Your task to perform on an android device: turn off improve location accuracy Image 0: 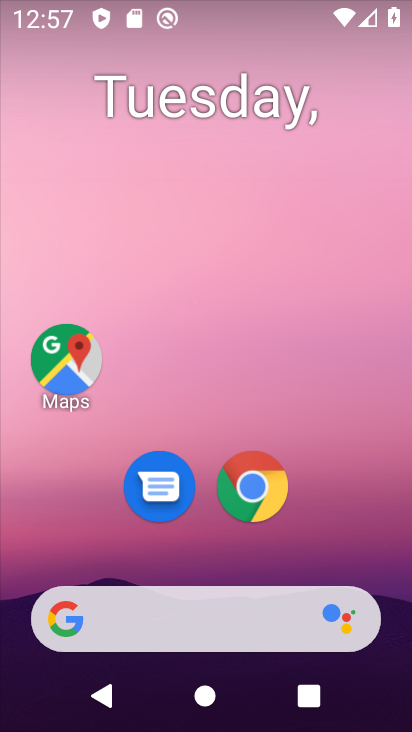
Step 0: drag from (315, 551) to (262, 200)
Your task to perform on an android device: turn off improve location accuracy Image 1: 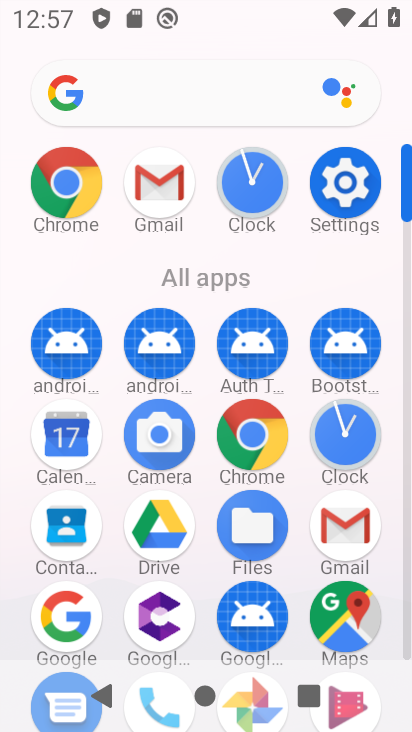
Step 1: click (337, 193)
Your task to perform on an android device: turn off improve location accuracy Image 2: 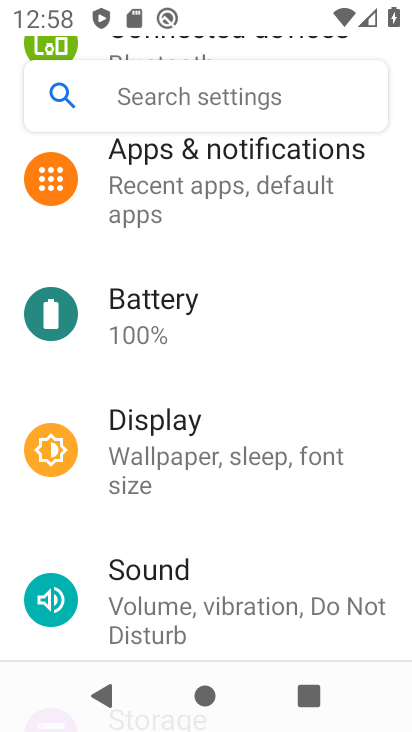
Step 2: drag from (256, 172) to (240, 654)
Your task to perform on an android device: turn off improve location accuracy Image 3: 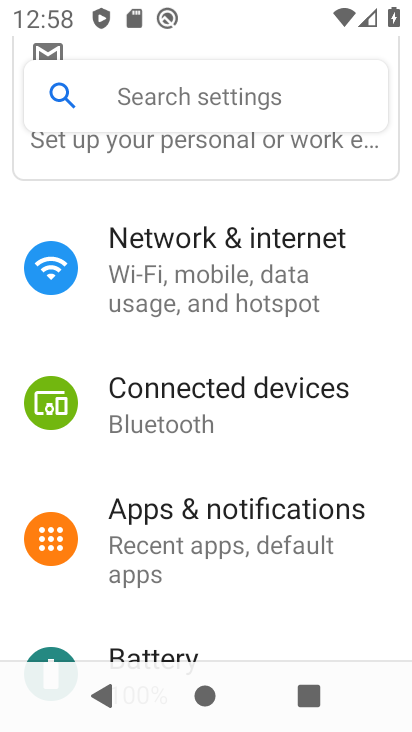
Step 3: drag from (237, 646) to (241, 297)
Your task to perform on an android device: turn off improve location accuracy Image 4: 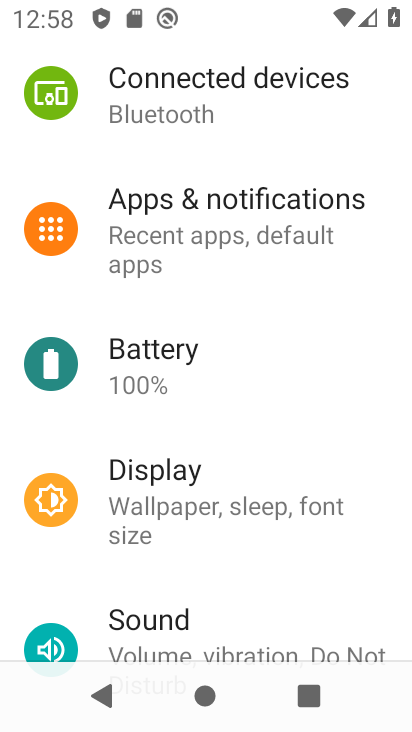
Step 4: drag from (209, 580) to (197, 225)
Your task to perform on an android device: turn off improve location accuracy Image 5: 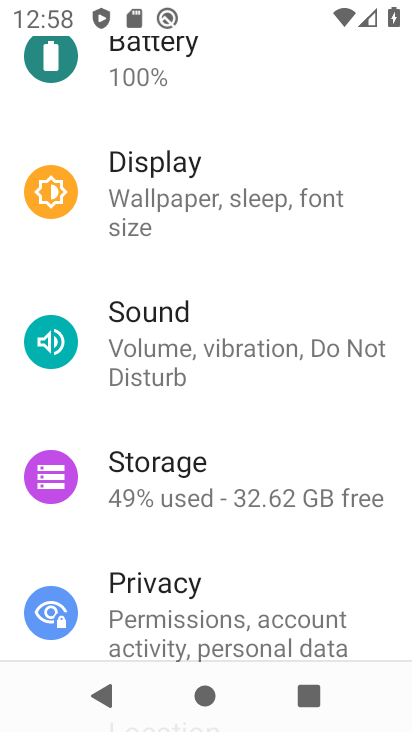
Step 5: drag from (239, 627) to (219, 304)
Your task to perform on an android device: turn off improve location accuracy Image 6: 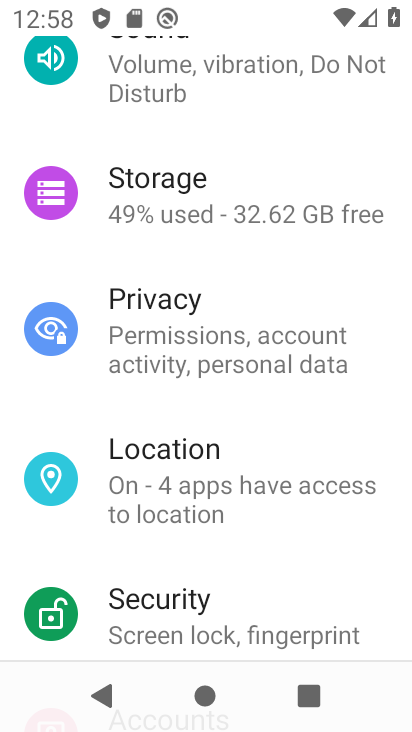
Step 6: click (237, 469)
Your task to perform on an android device: turn off improve location accuracy Image 7: 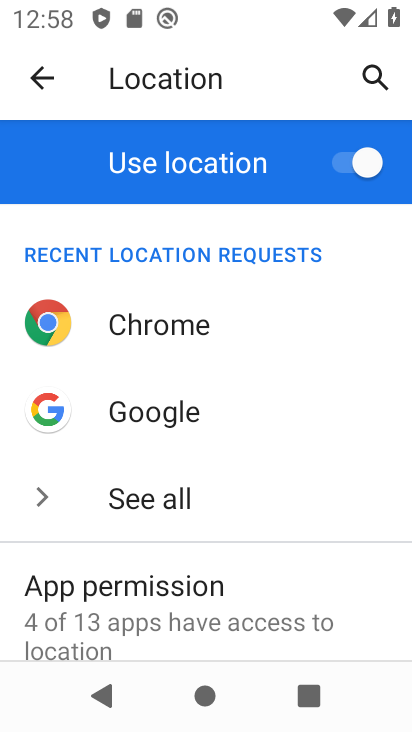
Step 7: drag from (249, 392) to (241, 319)
Your task to perform on an android device: turn off improve location accuracy Image 8: 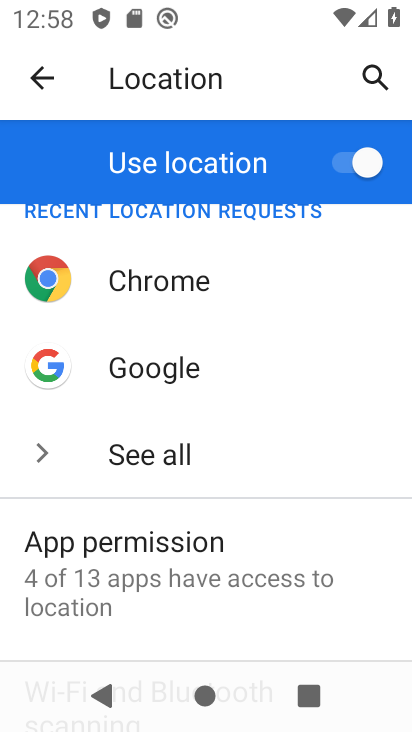
Step 8: drag from (274, 591) to (252, 195)
Your task to perform on an android device: turn off improve location accuracy Image 9: 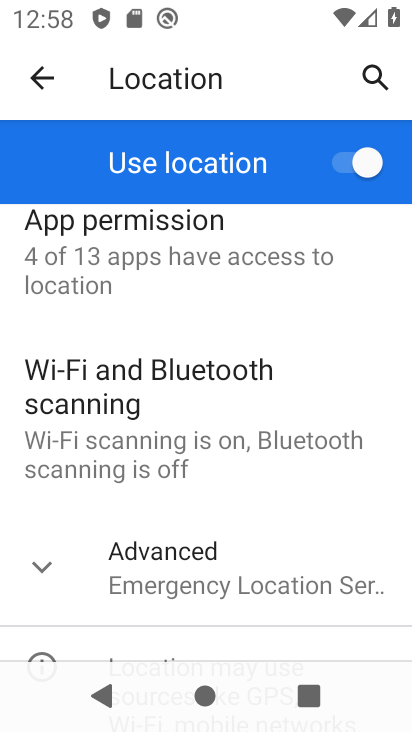
Step 9: click (267, 606)
Your task to perform on an android device: turn off improve location accuracy Image 10: 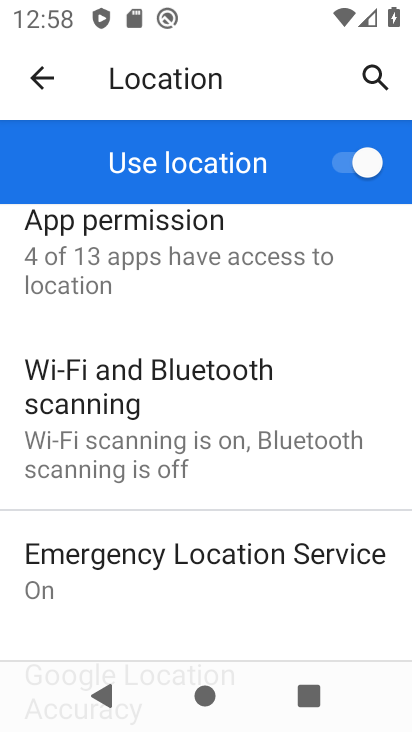
Step 10: drag from (312, 601) to (279, 288)
Your task to perform on an android device: turn off improve location accuracy Image 11: 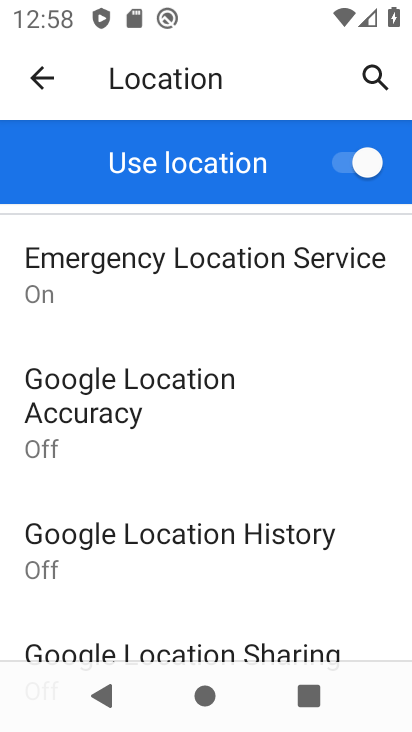
Step 11: click (296, 403)
Your task to perform on an android device: turn off improve location accuracy Image 12: 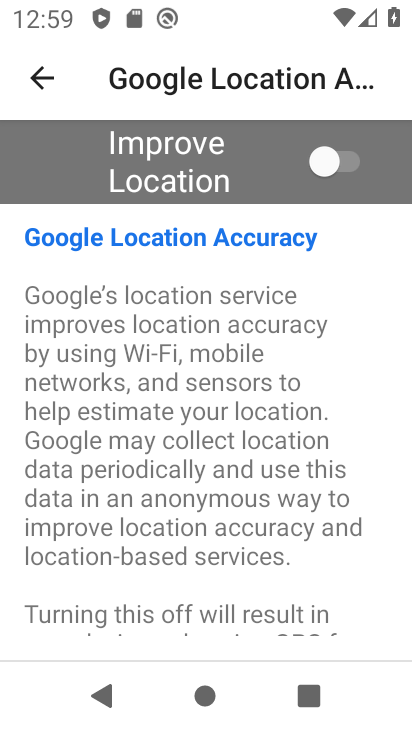
Step 12: task complete